Your task to perform on an android device: turn smart compose on in the gmail app Image 0: 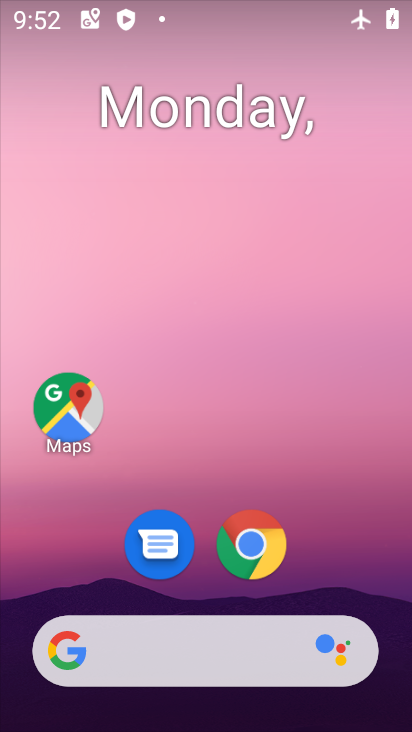
Step 0: drag from (174, 455) to (174, 43)
Your task to perform on an android device: turn smart compose on in the gmail app Image 1: 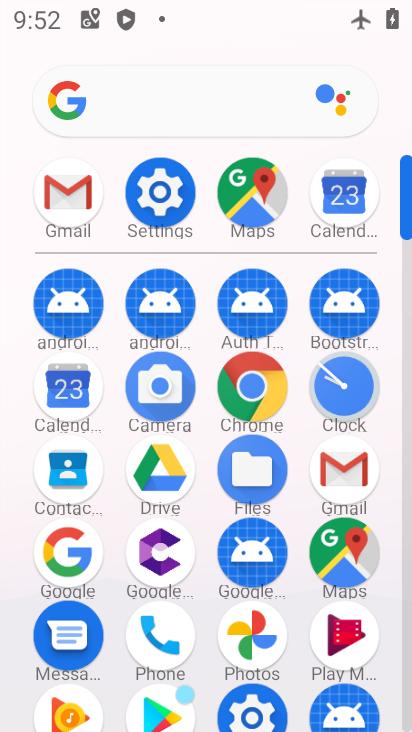
Step 1: click (62, 187)
Your task to perform on an android device: turn smart compose on in the gmail app Image 2: 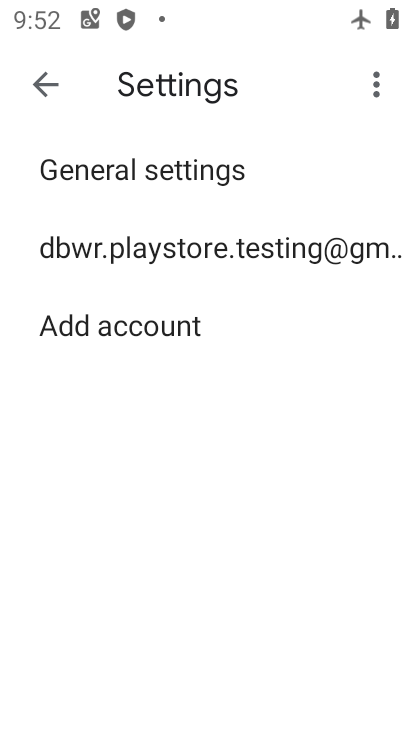
Step 2: click (126, 254)
Your task to perform on an android device: turn smart compose on in the gmail app Image 3: 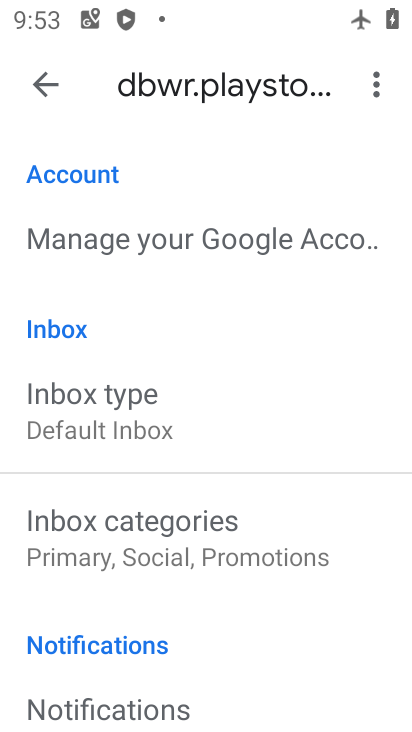
Step 3: task complete